Your task to perform on an android device: uninstall "PUBG MOBILE" Image 0: 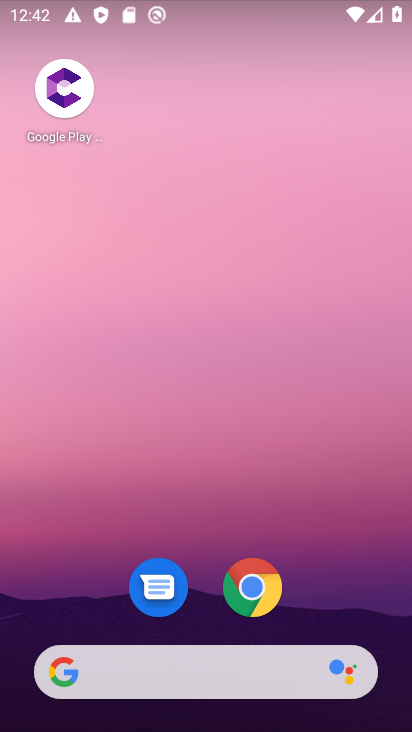
Step 0: drag from (228, 718) to (176, 113)
Your task to perform on an android device: uninstall "PUBG MOBILE" Image 1: 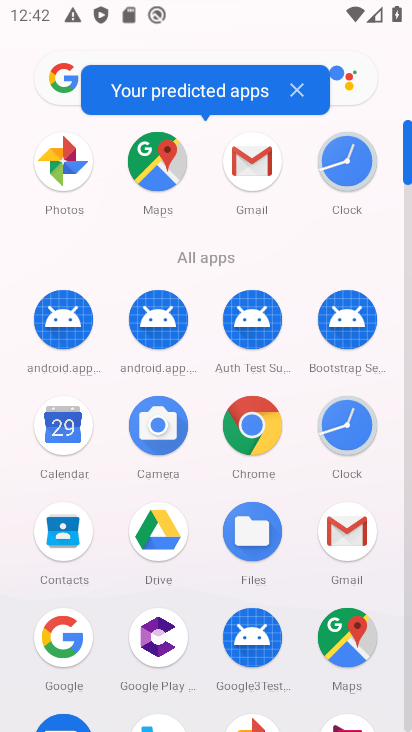
Step 1: drag from (259, 523) to (357, 12)
Your task to perform on an android device: uninstall "PUBG MOBILE" Image 2: 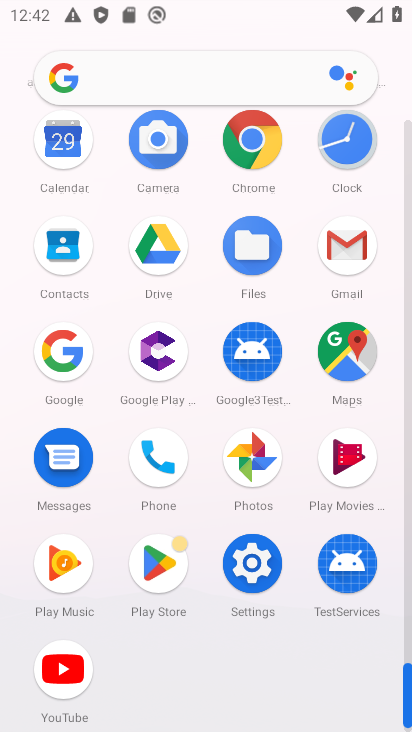
Step 2: click (148, 561)
Your task to perform on an android device: uninstall "PUBG MOBILE" Image 3: 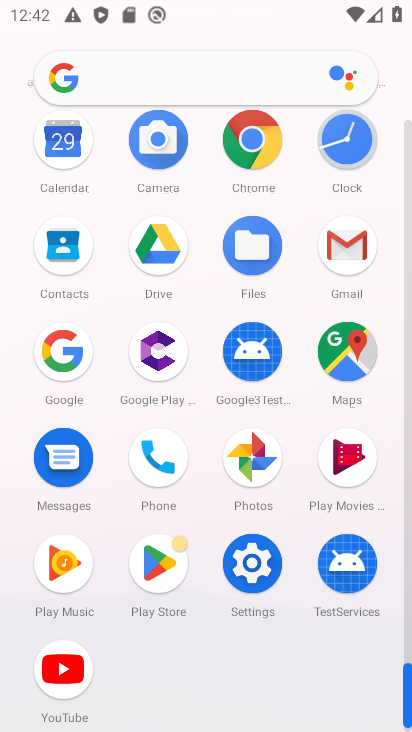
Step 3: click (148, 561)
Your task to perform on an android device: uninstall "PUBG MOBILE" Image 4: 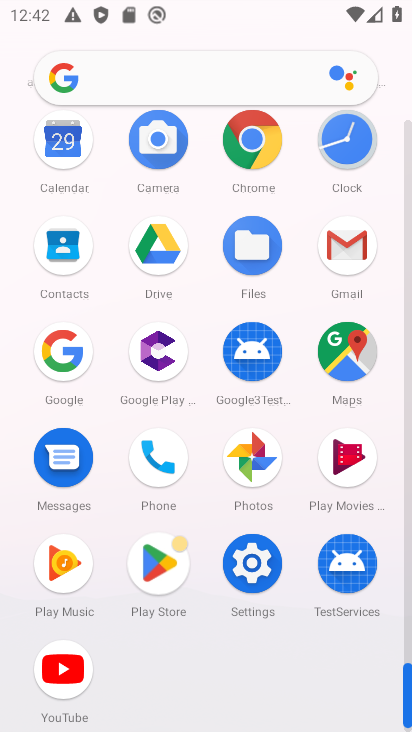
Step 4: click (148, 561)
Your task to perform on an android device: uninstall "PUBG MOBILE" Image 5: 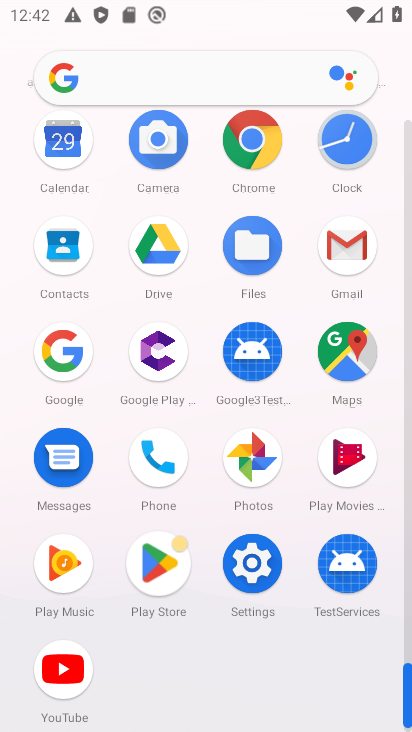
Step 5: click (148, 561)
Your task to perform on an android device: uninstall "PUBG MOBILE" Image 6: 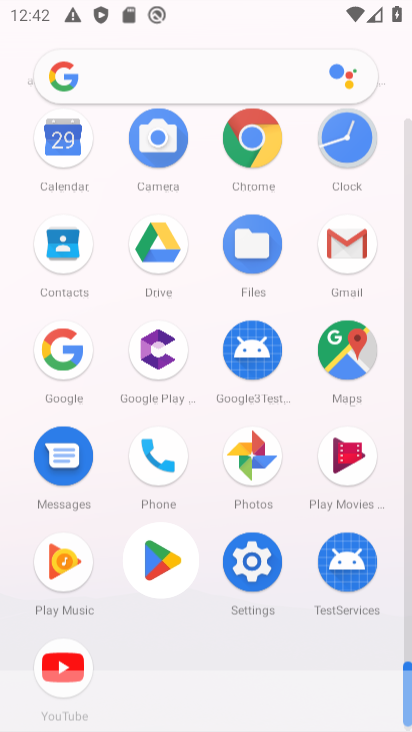
Step 6: click (148, 561)
Your task to perform on an android device: uninstall "PUBG MOBILE" Image 7: 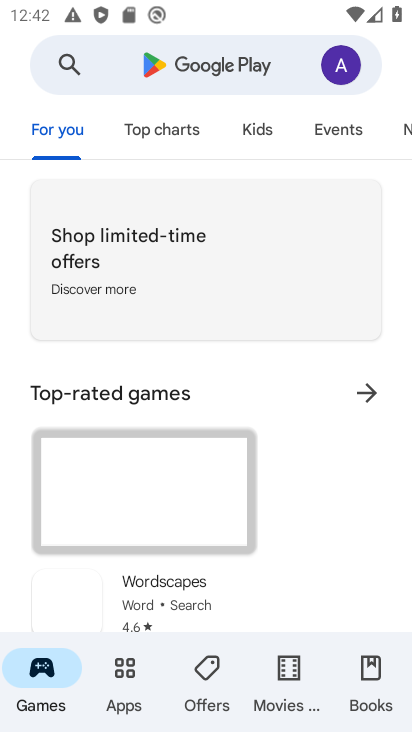
Step 7: click (230, 77)
Your task to perform on an android device: uninstall "PUBG MOBILE" Image 8: 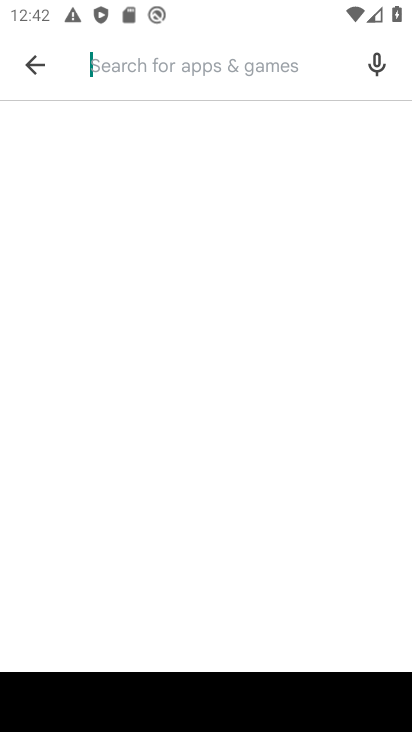
Step 8: type "PUBG MOBILE"
Your task to perform on an android device: uninstall "PUBG MOBILE" Image 9: 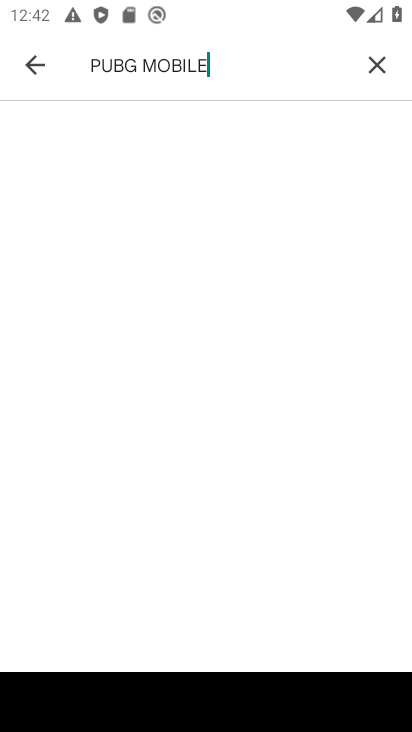
Step 9: press enter
Your task to perform on an android device: uninstall "PUBG MOBILE" Image 10: 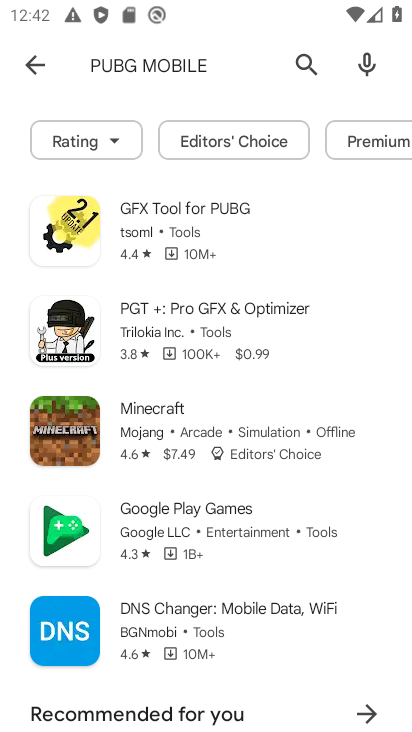
Step 10: task complete